Your task to perform on an android device: toggle javascript in the chrome app Image 0: 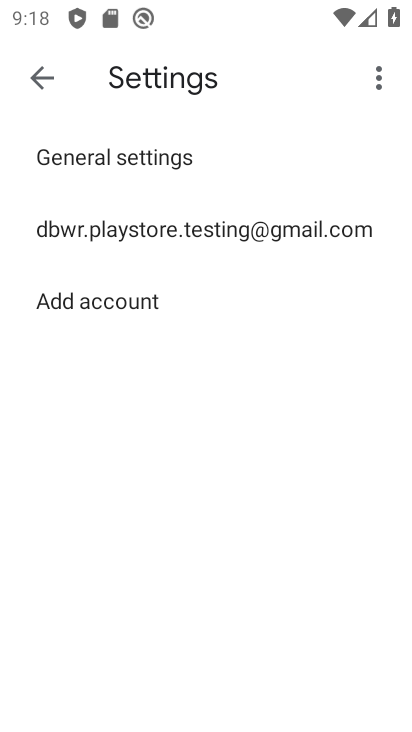
Step 0: press home button
Your task to perform on an android device: toggle javascript in the chrome app Image 1: 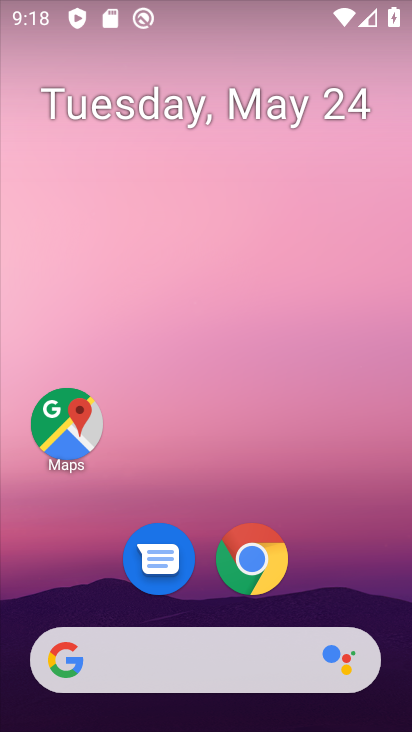
Step 1: click (268, 567)
Your task to perform on an android device: toggle javascript in the chrome app Image 2: 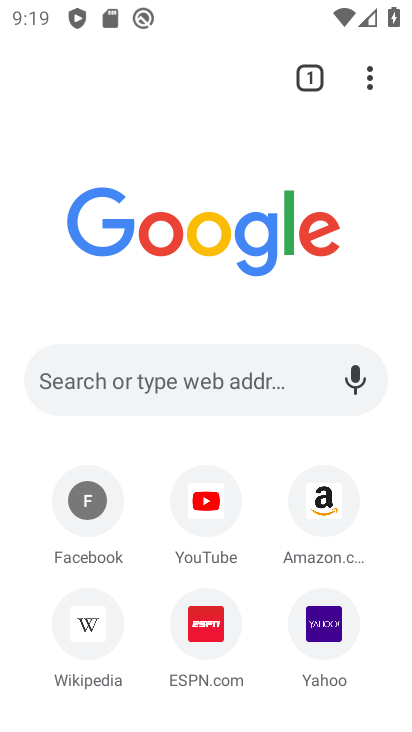
Step 2: click (371, 82)
Your task to perform on an android device: toggle javascript in the chrome app Image 3: 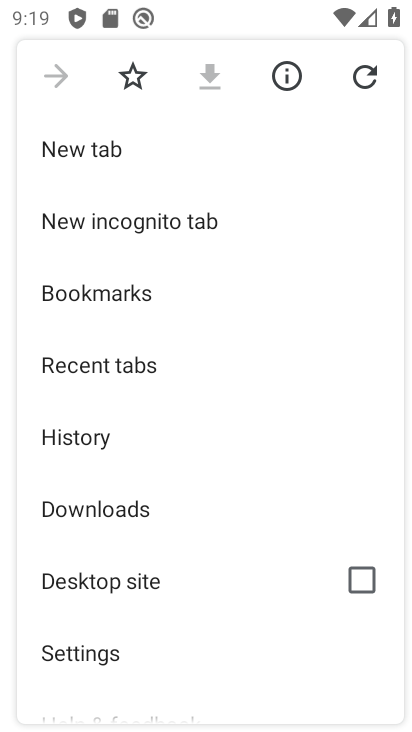
Step 3: click (140, 634)
Your task to perform on an android device: toggle javascript in the chrome app Image 4: 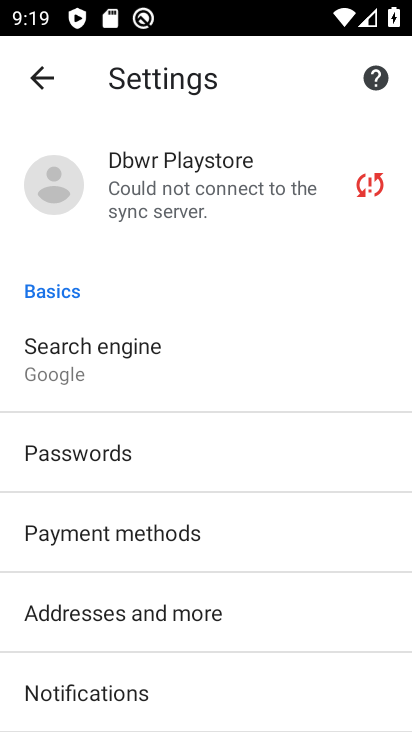
Step 4: drag from (99, 611) to (109, 292)
Your task to perform on an android device: toggle javascript in the chrome app Image 5: 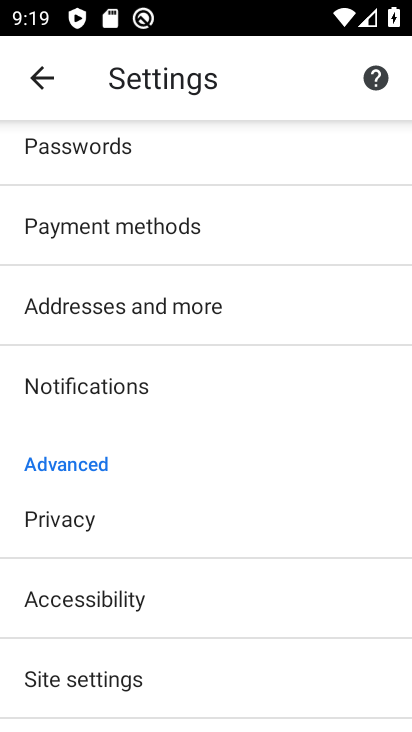
Step 5: drag from (133, 664) to (162, 412)
Your task to perform on an android device: toggle javascript in the chrome app Image 6: 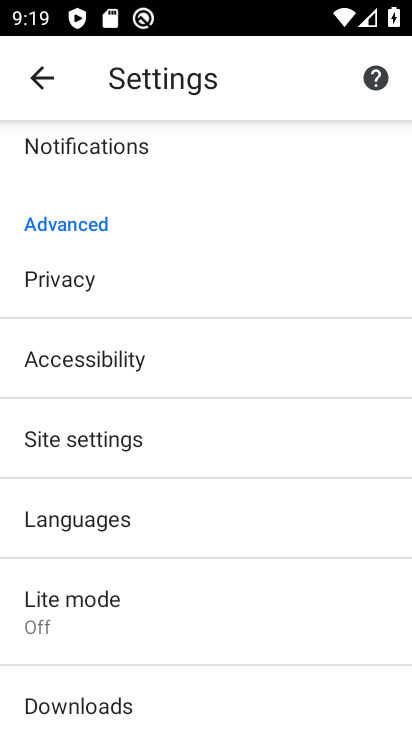
Step 6: click (218, 433)
Your task to perform on an android device: toggle javascript in the chrome app Image 7: 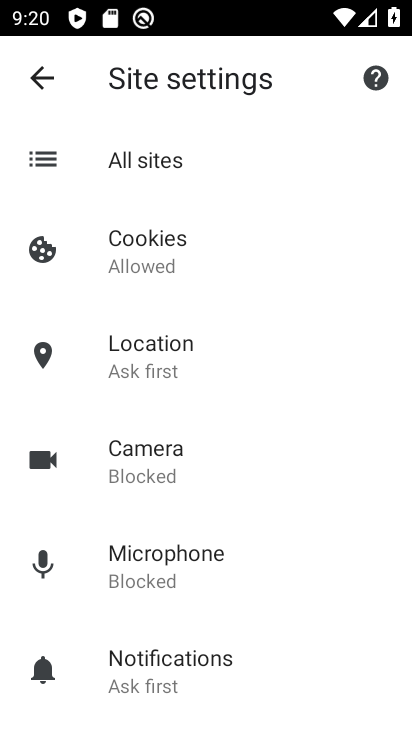
Step 7: task complete